Your task to perform on an android device: clear all cookies in the chrome app Image 0: 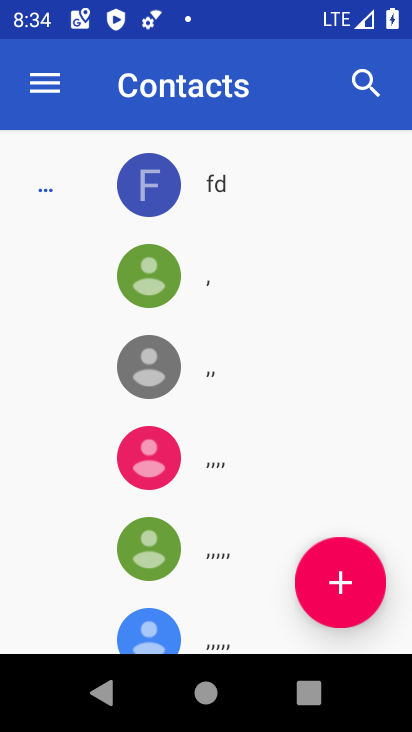
Step 0: press home button
Your task to perform on an android device: clear all cookies in the chrome app Image 1: 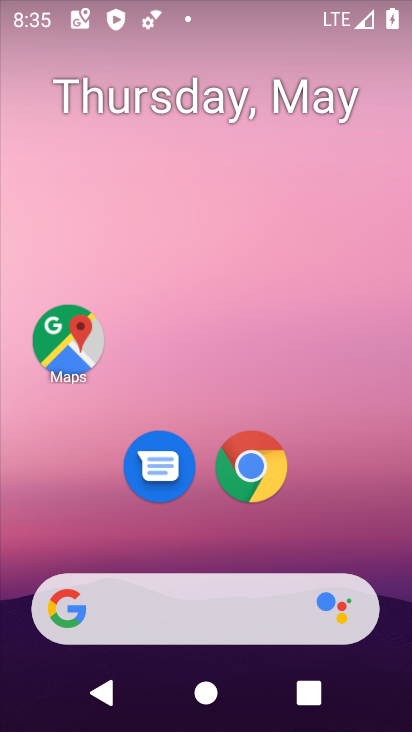
Step 1: click (256, 463)
Your task to perform on an android device: clear all cookies in the chrome app Image 2: 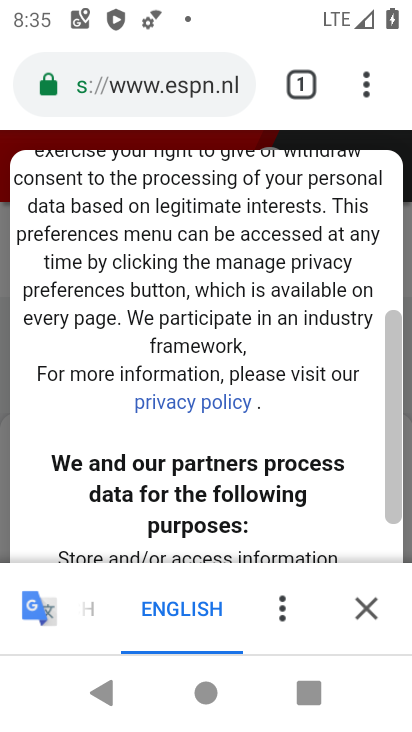
Step 2: click (363, 79)
Your task to perform on an android device: clear all cookies in the chrome app Image 3: 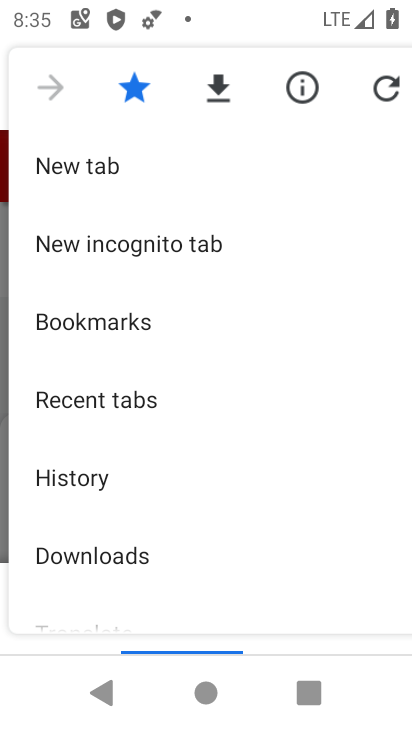
Step 3: drag from (216, 465) to (213, 72)
Your task to perform on an android device: clear all cookies in the chrome app Image 4: 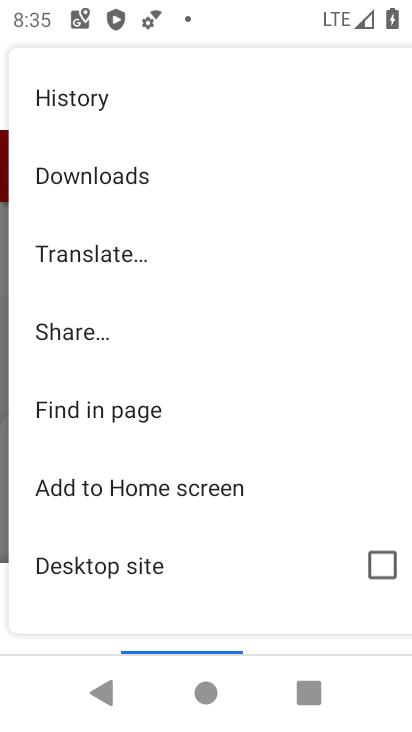
Step 4: drag from (178, 462) to (164, 102)
Your task to perform on an android device: clear all cookies in the chrome app Image 5: 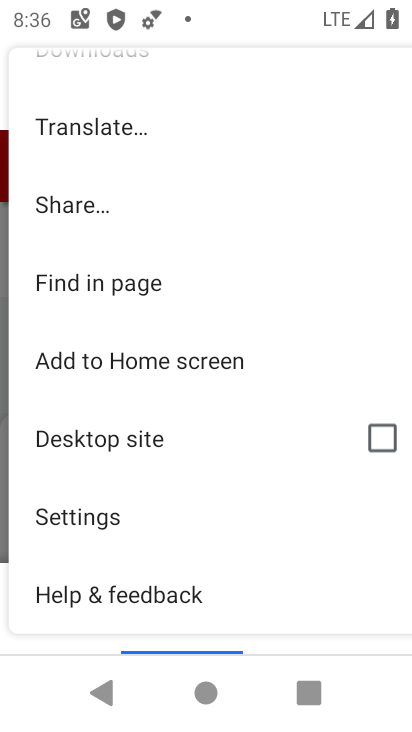
Step 5: click (77, 516)
Your task to perform on an android device: clear all cookies in the chrome app Image 6: 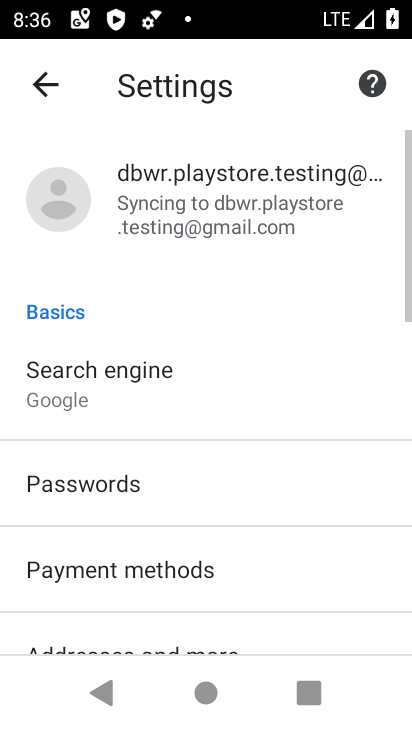
Step 6: drag from (178, 518) to (189, 132)
Your task to perform on an android device: clear all cookies in the chrome app Image 7: 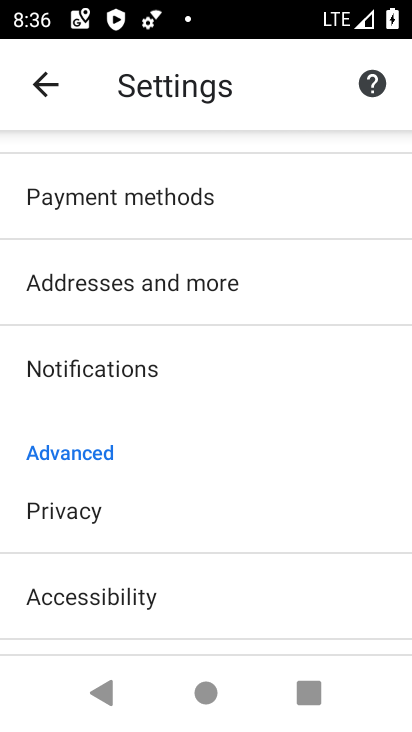
Step 7: click (90, 515)
Your task to perform on an android device: clear all cookies in the chrome app Image 8: 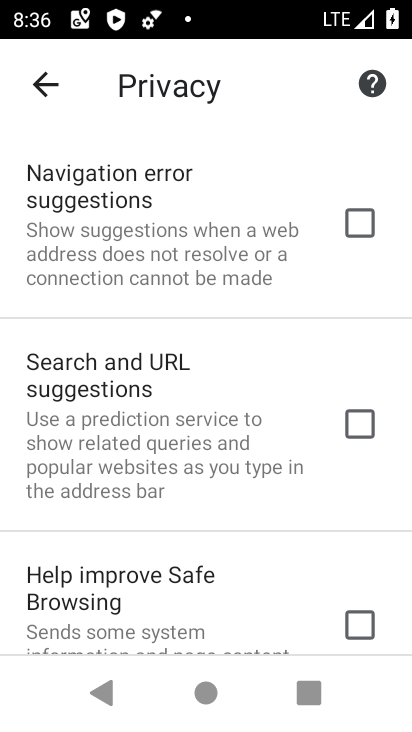
Step 8: drag from (193, 576) to (188, 245)
Your task to perform on an android device: clear all cookies in the chrome app Image 9: 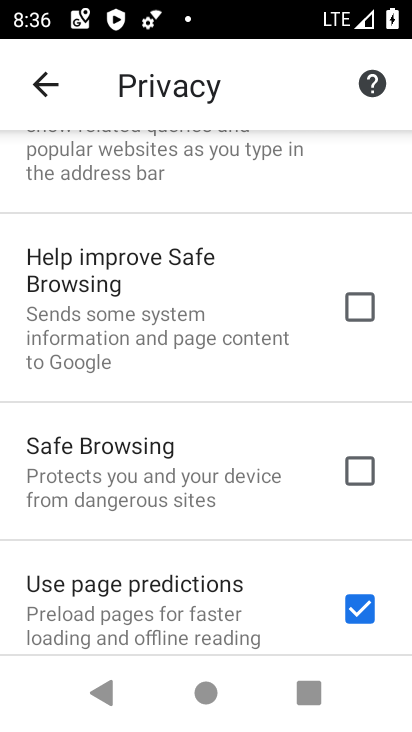
Step 9: drag from (165, 564) to (177, 171)
Your task to perform on an android device: clear all cookies in the chrome app Image 10: 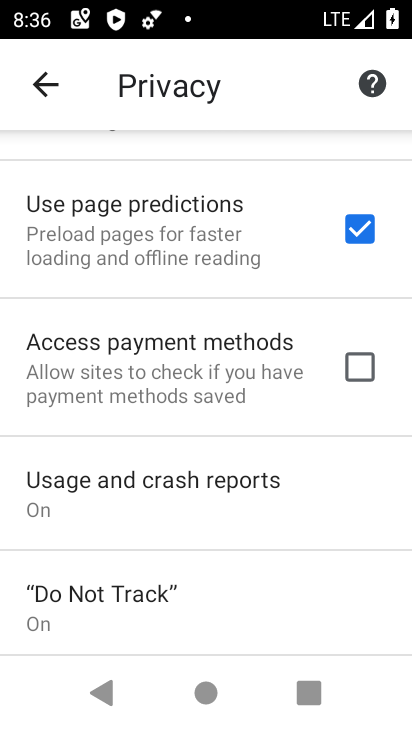
Step 10: click (156, 122)
Your task to perform on an android device: clear all cookies in the chrome app Image 11: 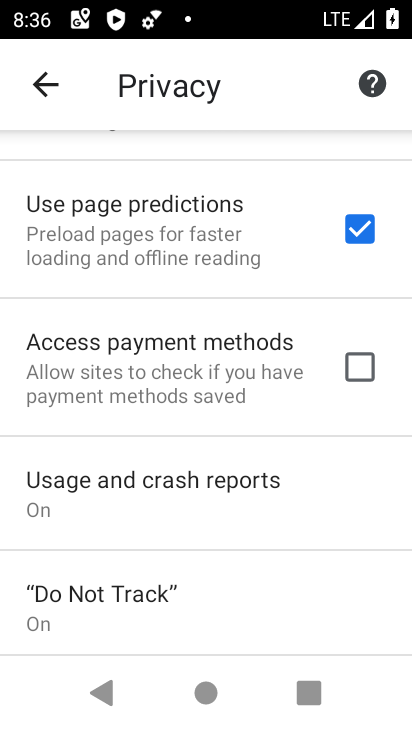
Step 11: drag from (205, 556) to (215, 154)
Your task to perform on an android device: clear all cookies in the chrome app Image 12: 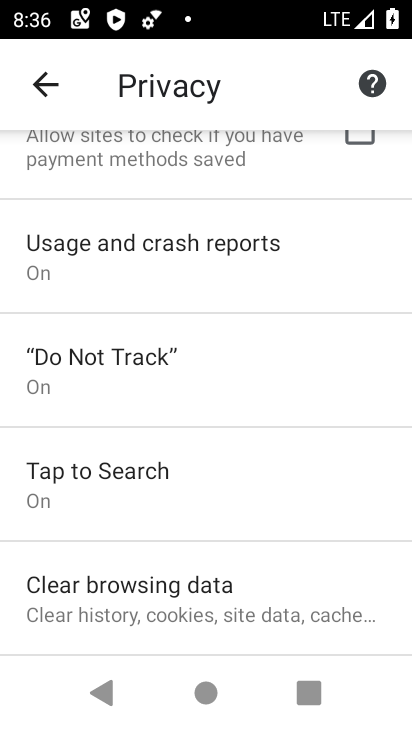
Step 12: drag from (114, 591) to (130, 308)
Your task to perform on an android device: clear all cookies in the chrome app Image 13: 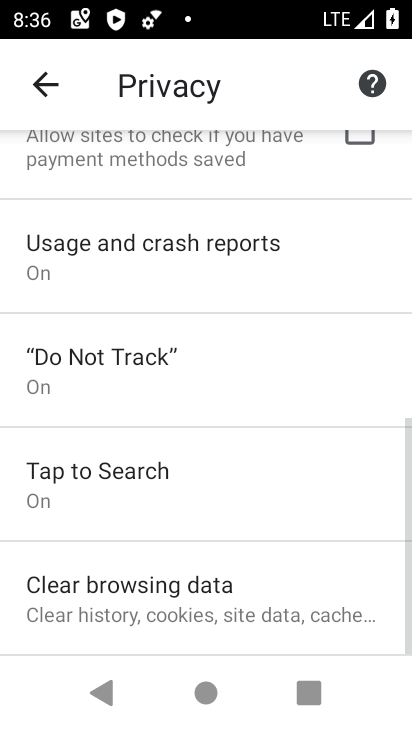
Step 13: click (107, 602)
Your task to perform on an android device: clear all cookies in the chrome app Image 14: 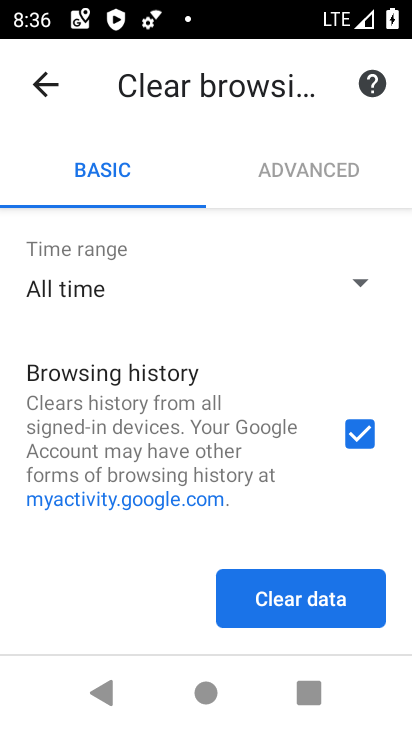
Step 14: click (362, 438)
Your task to perform on an android device: clear all cookies in the chrome app Image 15: 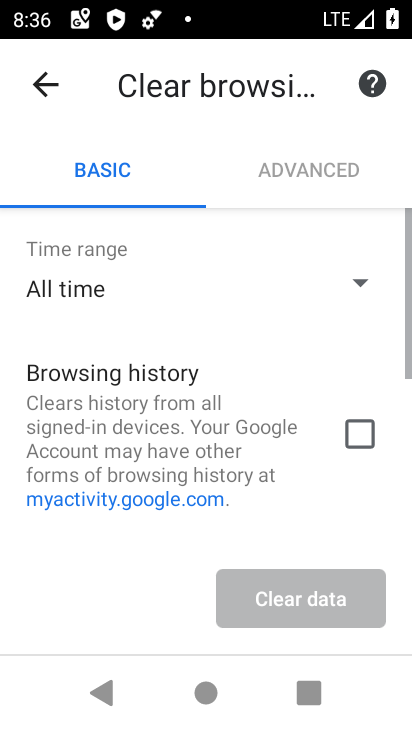
Step 15: drag from (168, 486) to (186, 143)
Your task to perform on an android device: clear all cookies in the chrome app Image 16: 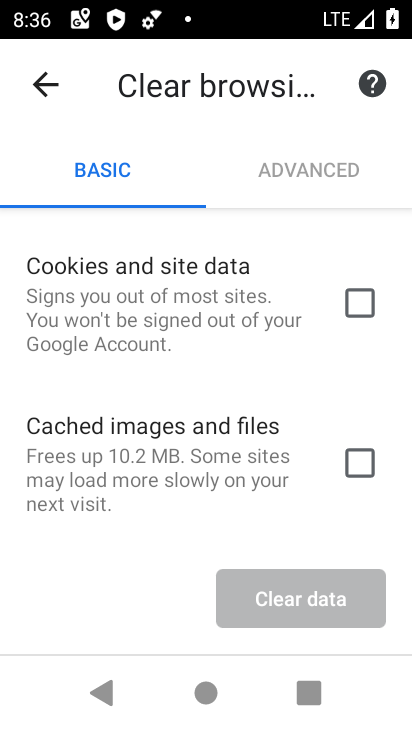
Step 16: click (355, 316)
Your task to perform on an android device: clear all cookies in the chrome app Image 17: 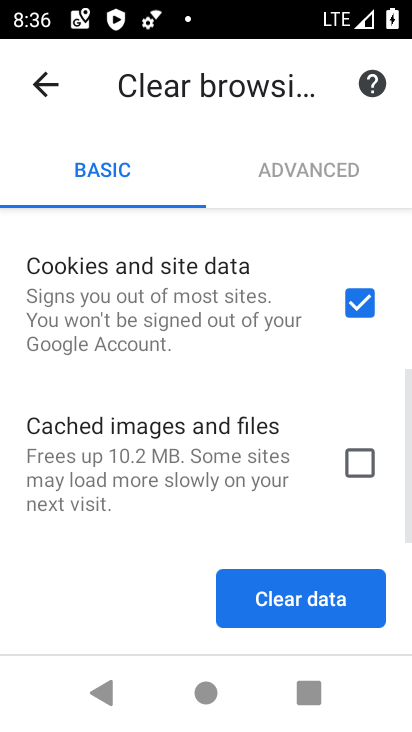
Step 17: click (303, 596)
Your task to perform on an android device: clear all cookies in the chrome app Image 18: 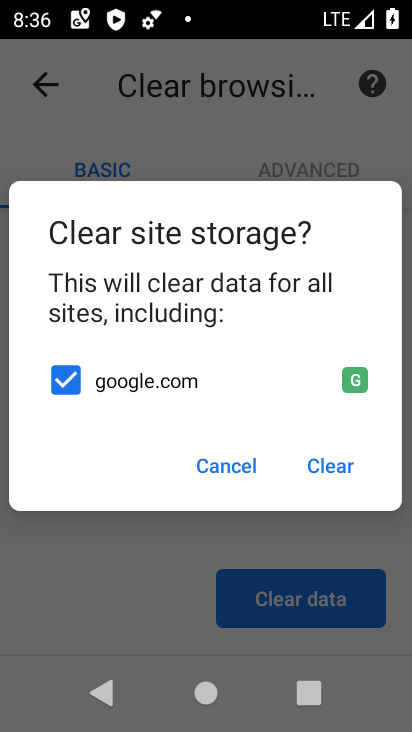
Step 18: click (330, 460)
Your task to perform on an android device: clear all cookies in the chrome app Image 19: 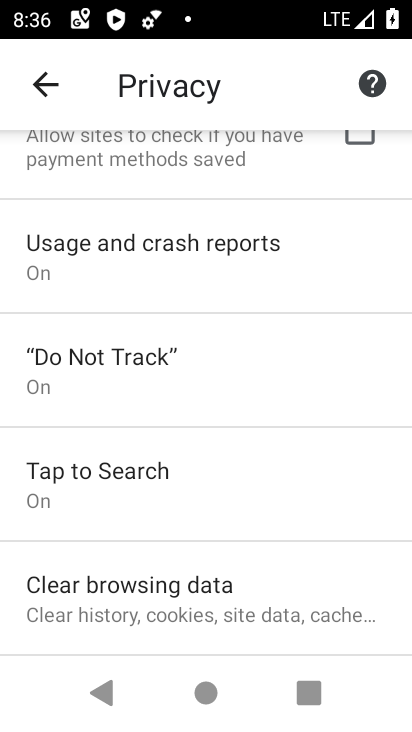
Step 19: task complete